Your task to perform on an android device: Open Google Maps Image 0: 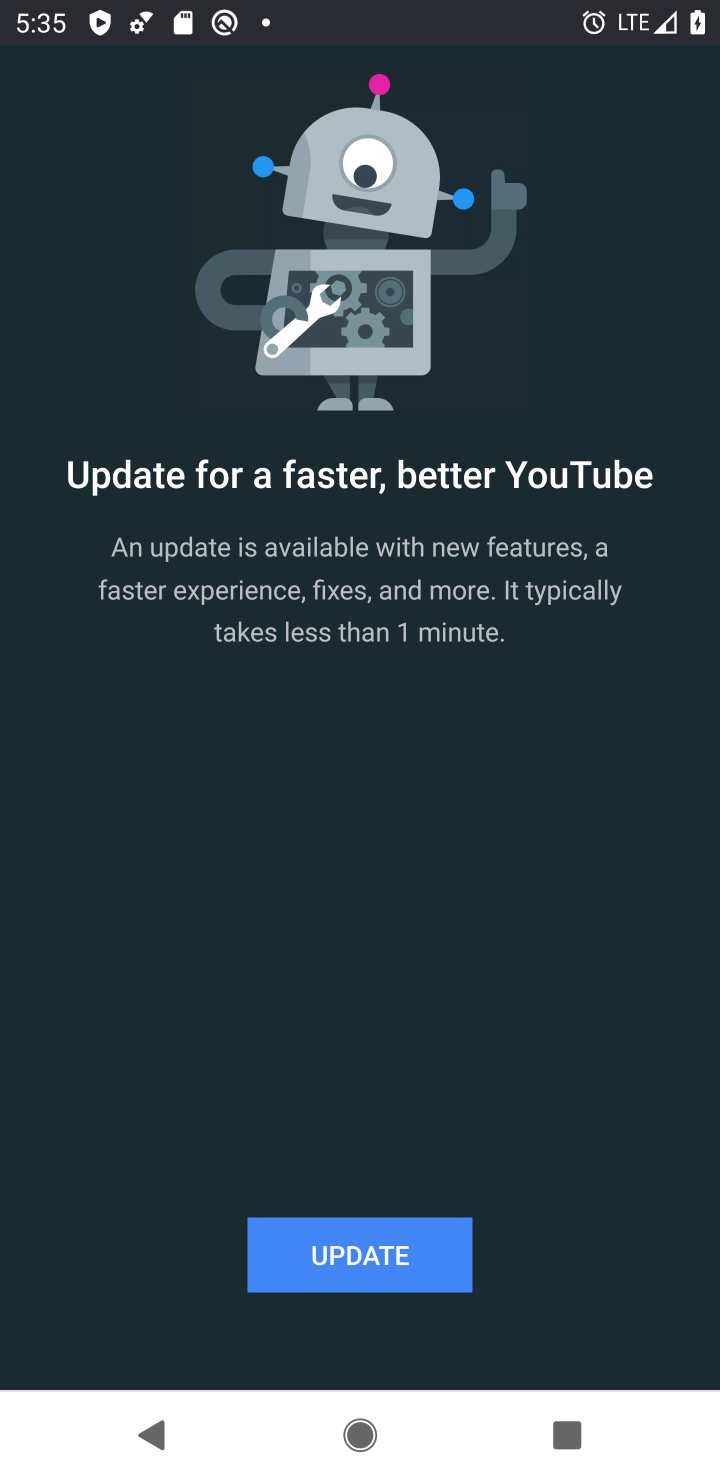
Step 0: press home button
Your task to perform on an android device: Open Google Maps Image 1: 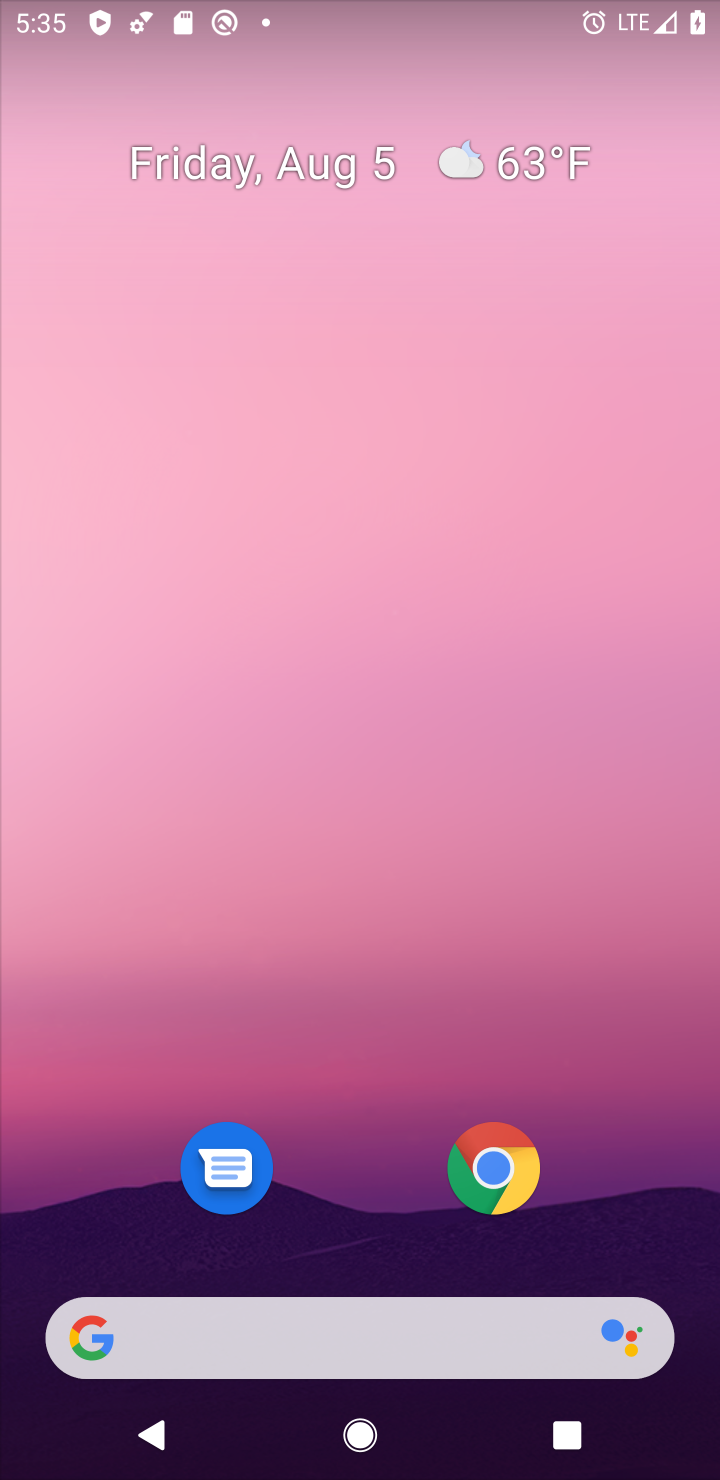
Step 1: drag from (343, 1269) to (330, 32)
Your task to perform on an android device: Open Google Maps Image 2: 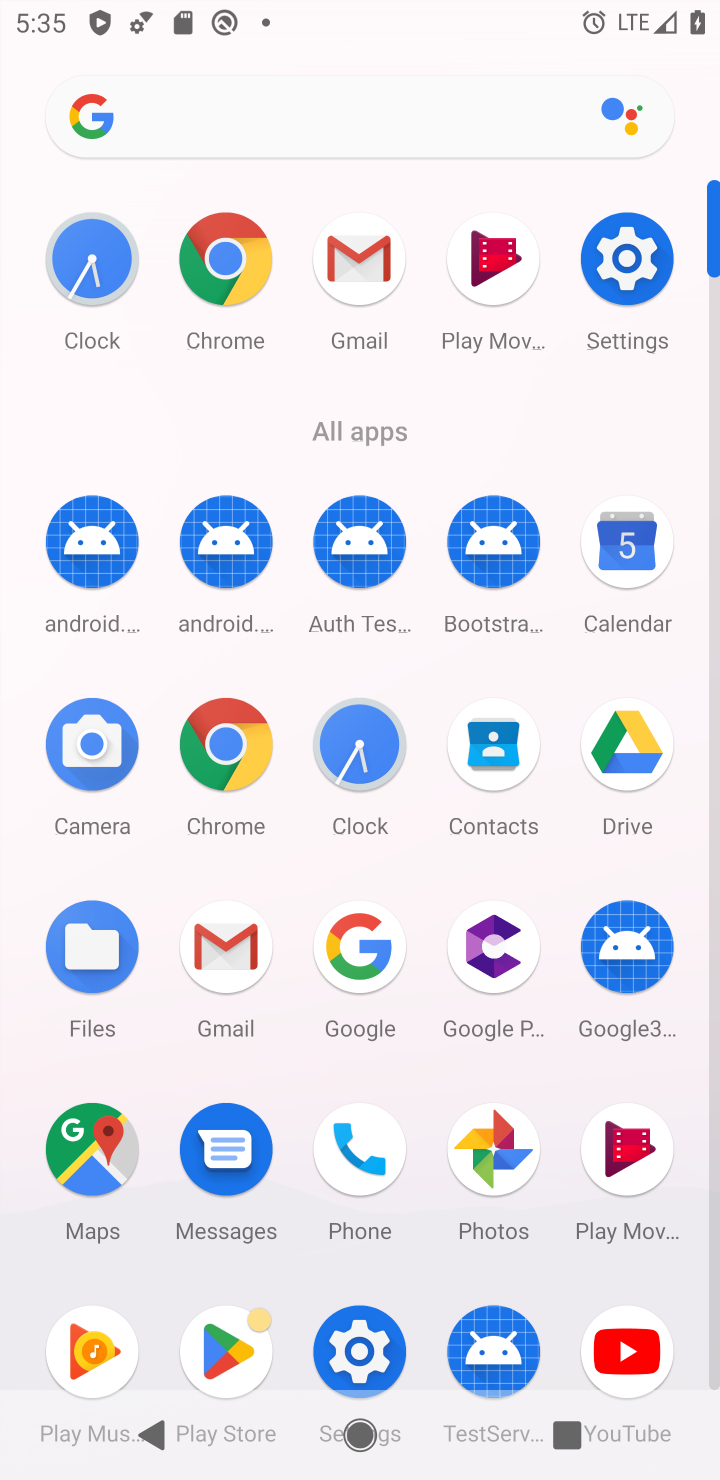
Step 2: click (88, 1166)
Your task to perform on an android device: Open Google Maps Image 3: 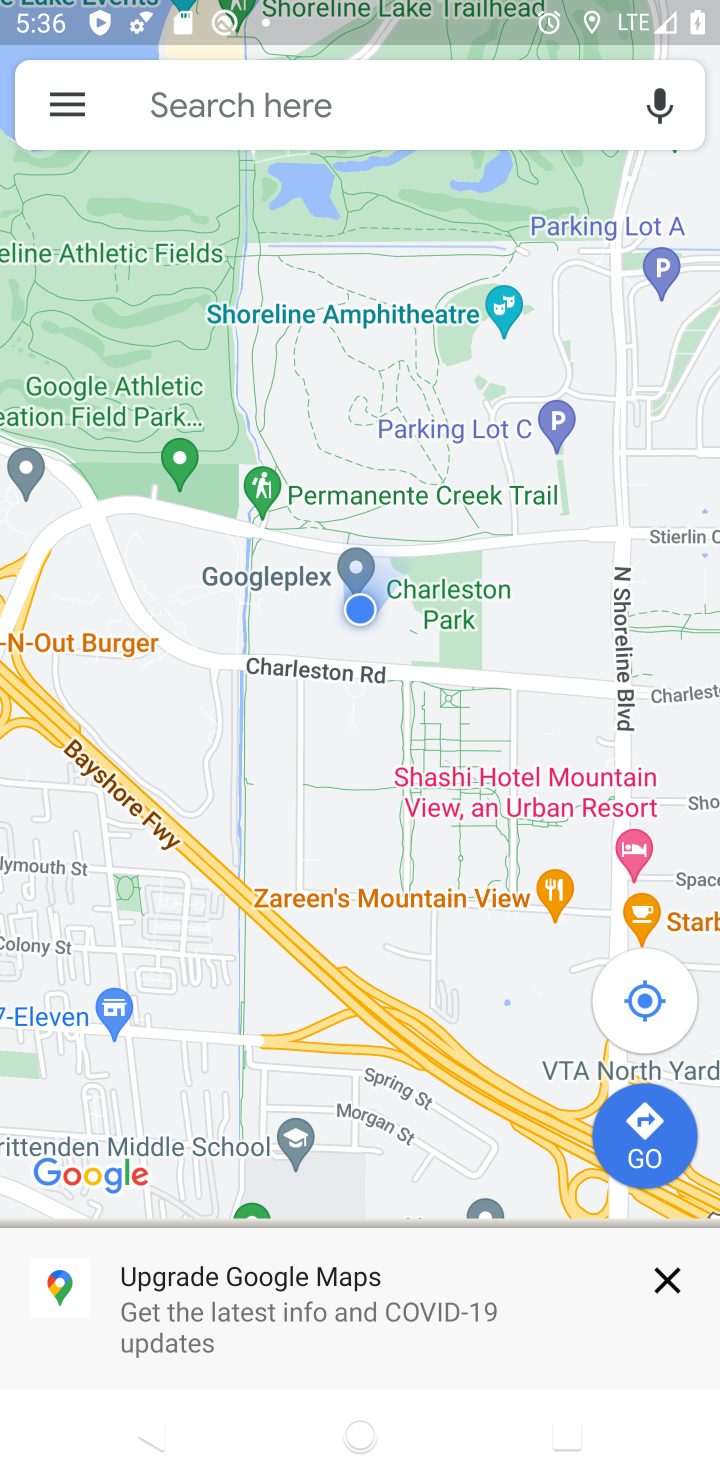
Step 3: task complete